Your task to perform on an android device: Check the news Image 0: 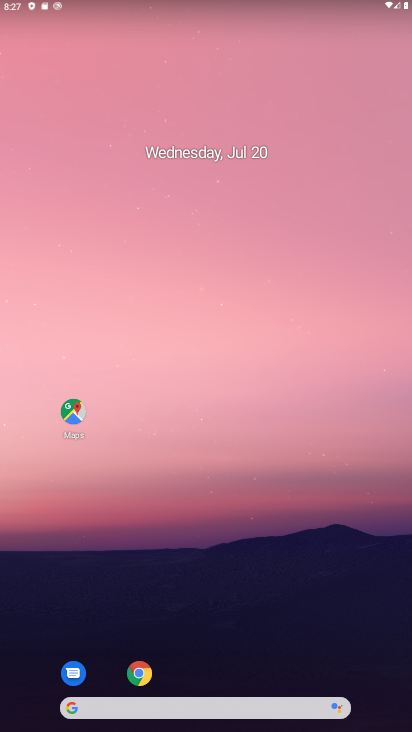
Step 0: drag from (2, 214) to (361, 194)
Your task to perform on an android device: Check the news Image 1: 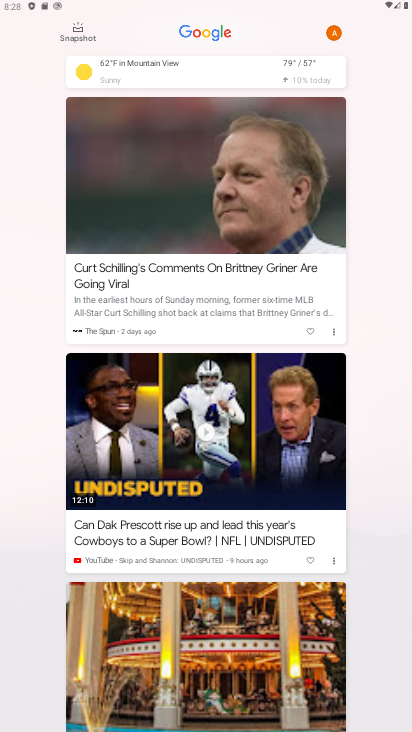
Step 1: task complete